Your task to perform on an android device: Open the calendar app, open the side menu, and click the "Day" option Image 0: 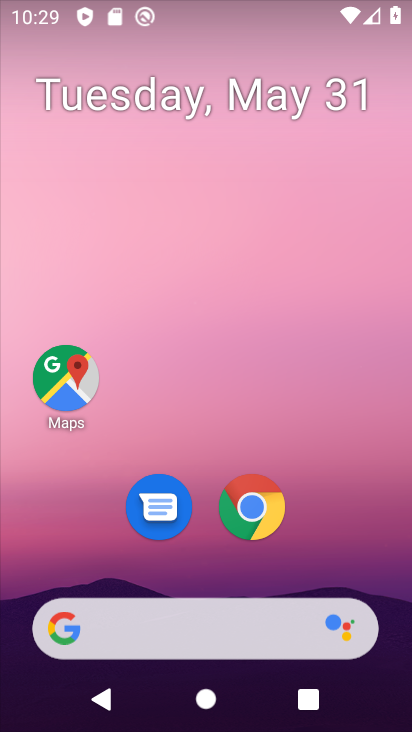
Step 0: drag from (121, 542) to (235, 76)
Your task to perform on an android device: Open the calendar app, open the side menu, and click the "Day" option Image 1: 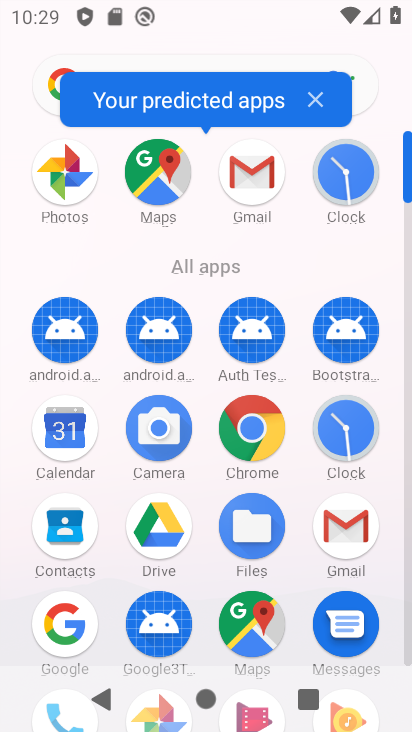
Step 1: click (76, 434)
Your task to perform on an android device: Open the calendar app, open the side menu, and click the "Day" option Image 2: 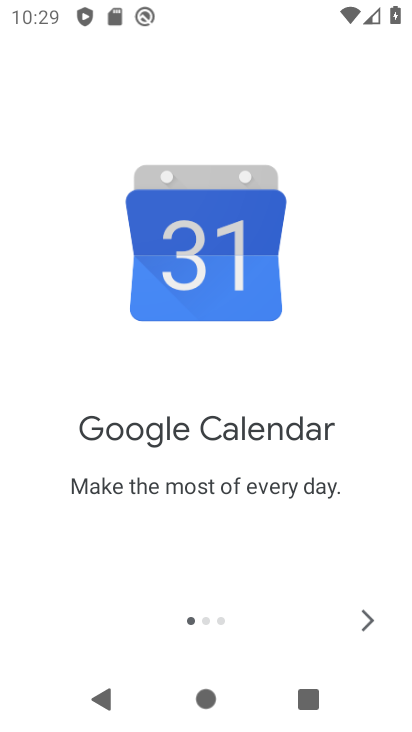
Step 2: click (366, 632)
Your task to perform on an android device: Open the calendar app, open the side menu, and click the "Day" option Image 3: 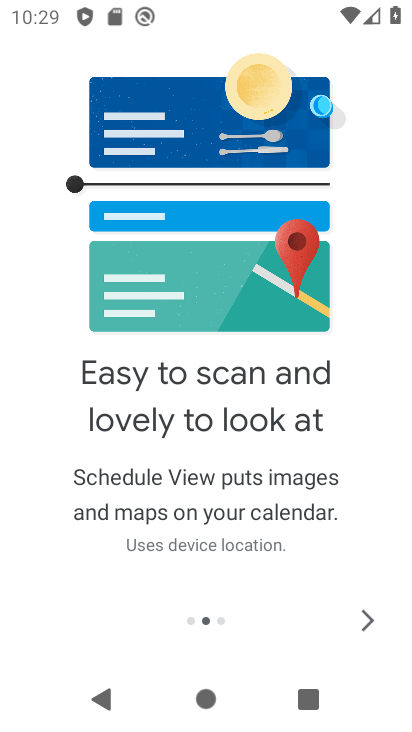
Step 3: click (366, 633)
Your task to perform on an android device: Open the calendar app, open the side menu, and click the "Day" option Image 4: 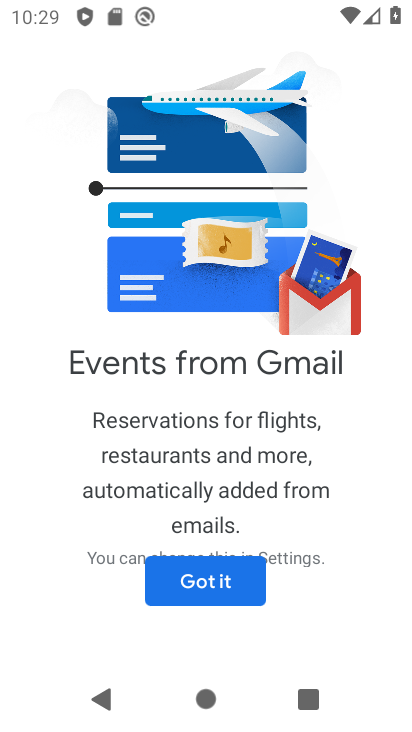
Step 4: click (201, 569)
Your task to perform on an android device: Open the calendar app, open the side menu, and click the "Day" option Image 5: 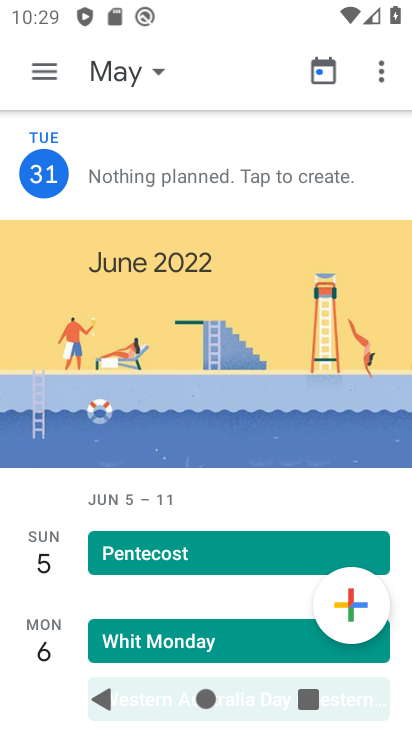
Step 5: click (54, 87)
Your task to perform on an android device: Open the calendar app, open the side menu, and click the "Day" option Image 6: 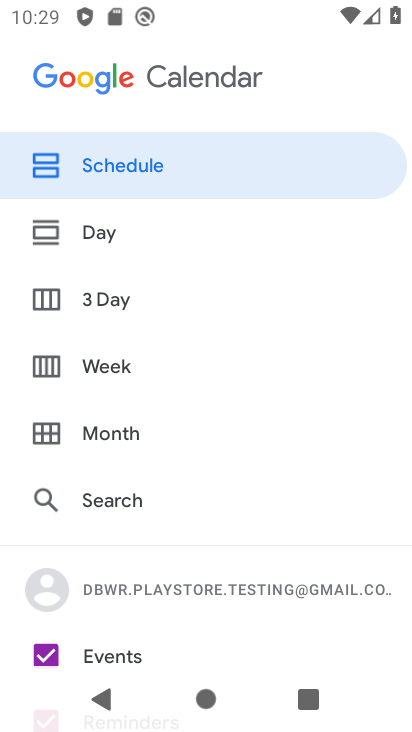
Step 6: click (193, 224)
Your task to perform on an android device: Open the calendar app, open the side menu, and click the "Day" option Image 7: 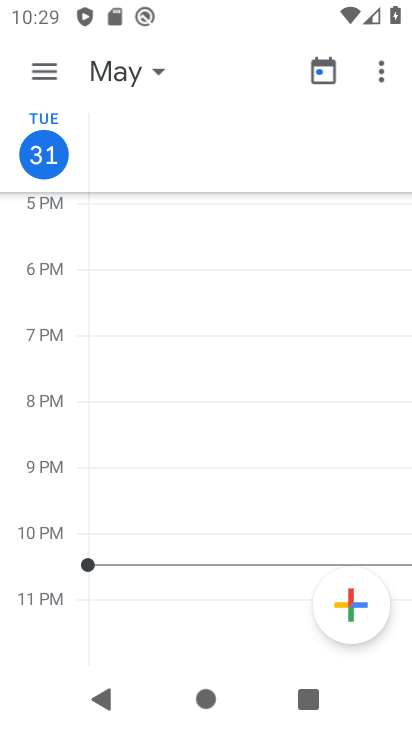
Step 7: task complete